Your task to perform on an android device: Open the contacts Image 0: 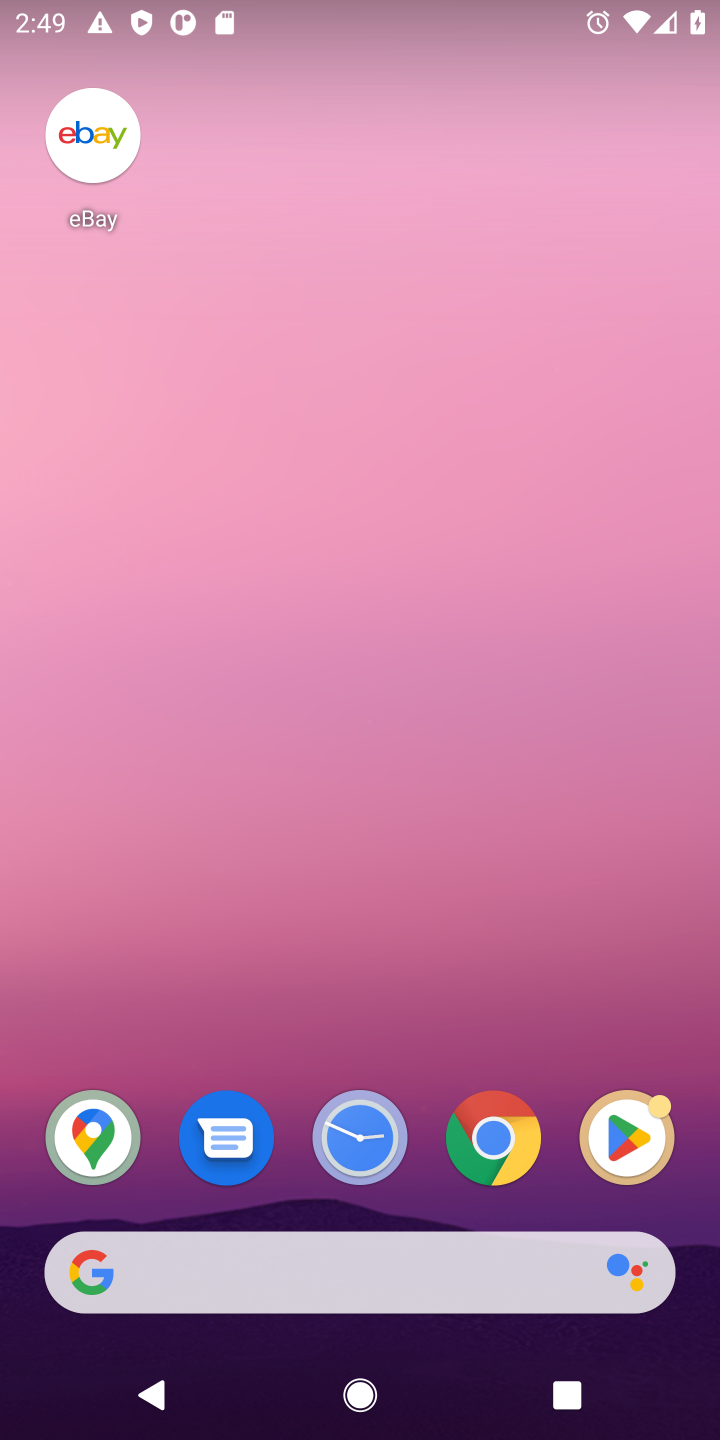
Step 0: drag from (364, 1034) to (318, 139)
Your task to perform on an android device: Open the contacts Image 1: 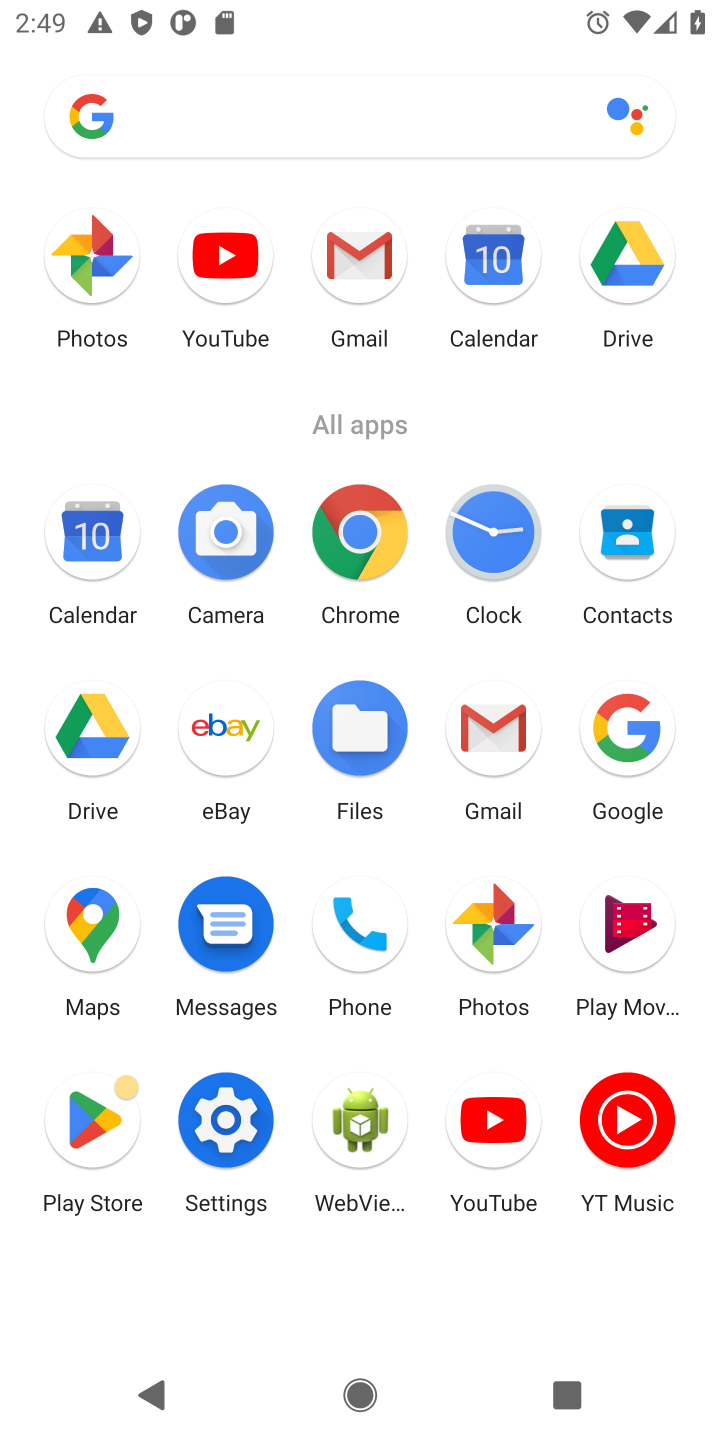
Step 1: click (612, 552)
Your task to perform on an android device: Open the contacts Image 2: 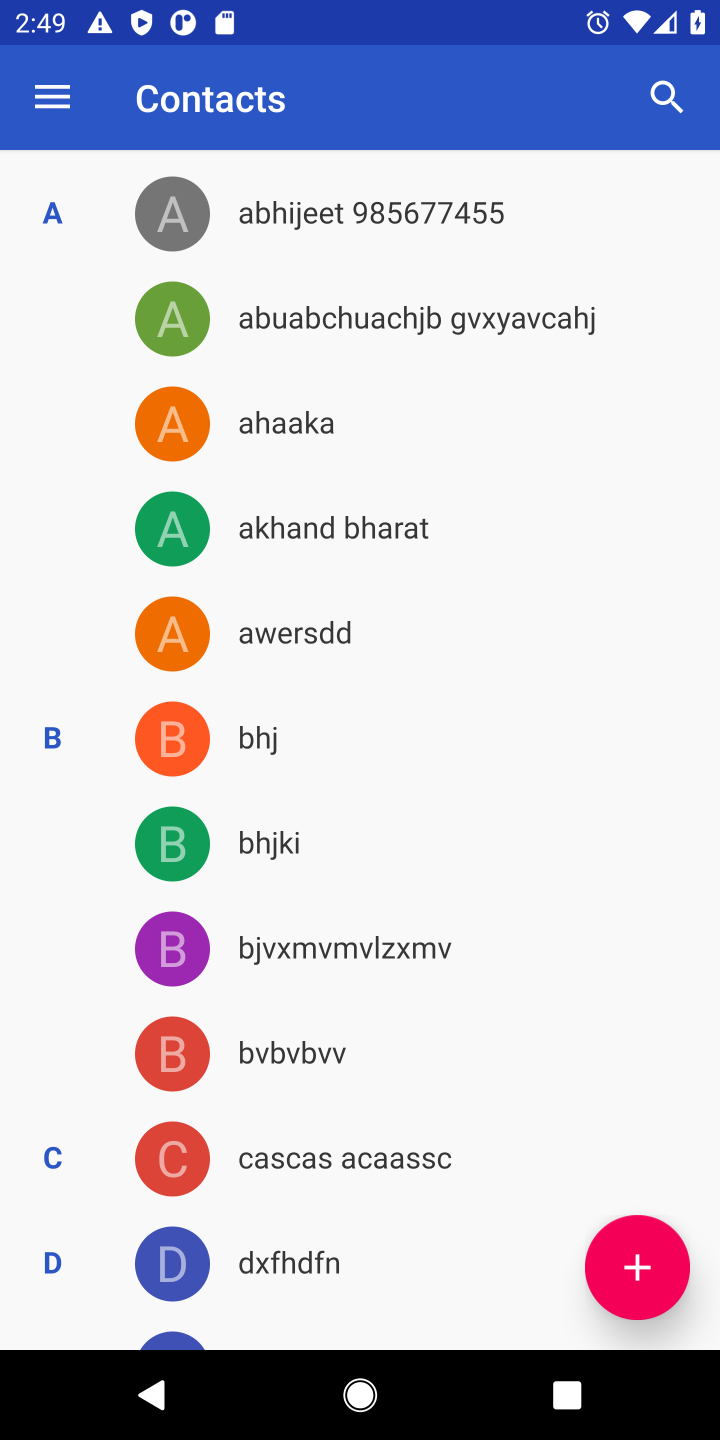
Step 2: task complete